Your task to perform on an android device: Search for seafood restaurants on Google Maps Image 0: 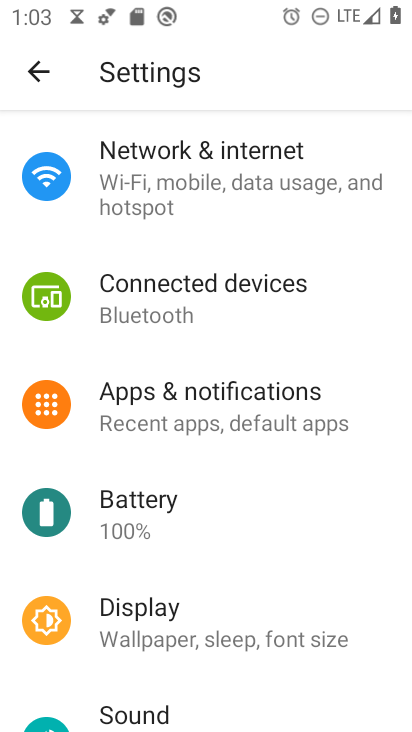
Step 0: press home button
Your task to perform on an android device: Search for seafood restaurants on Google Maps Image 1: 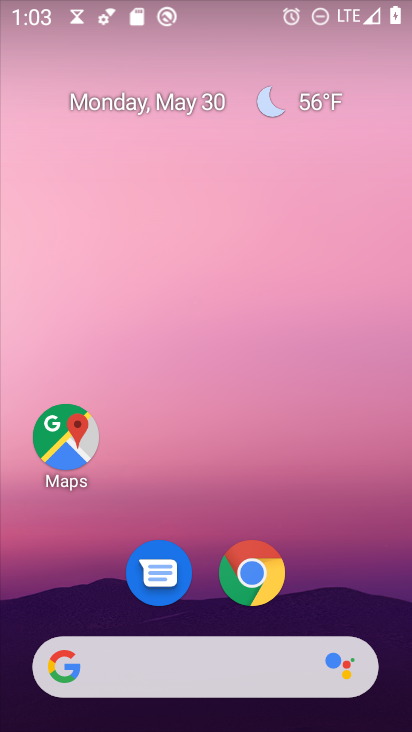
Step 1: drag from (289, 605) to (408, 723)
Your task to perform on an android device: Search for seafood restaurants on Google Maps Image 2: 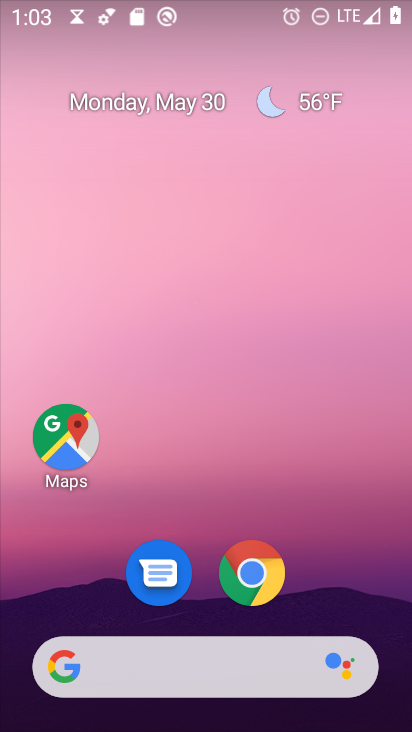
Step 2: click (339, 590)
Your task to perform on an android device: Search for seafood restaurants on Google Maps Image 3: 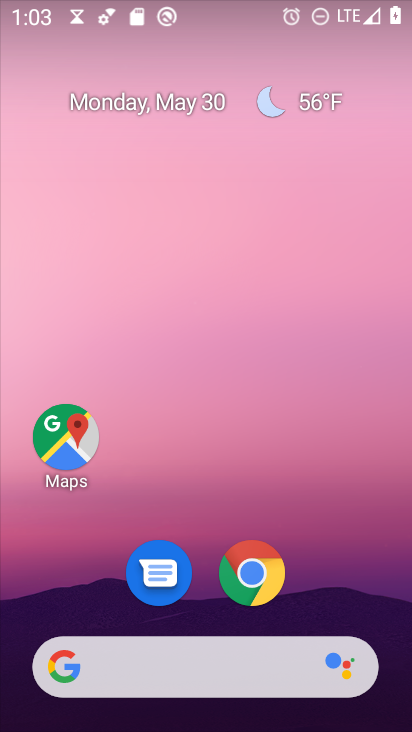
Step 3: drag from (349, 595) to (351, 10)
Your task to perform on an android device: Search for seafood restaurants on Google Maps Image 4: 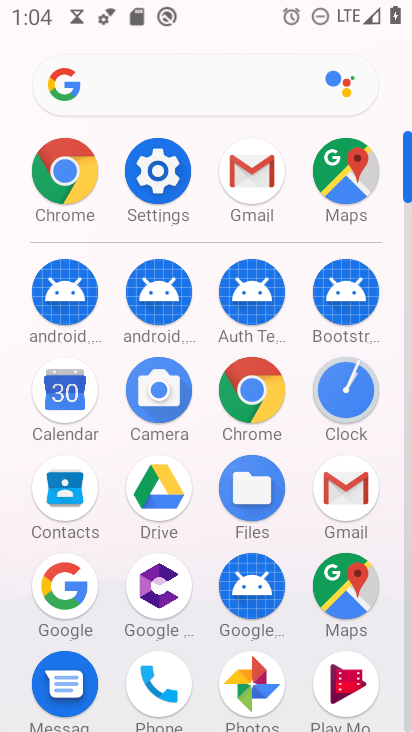
Step 4: click (346, 577)
Your task to perform on an android device: Search for seafood restaurants on Google Maps Image 5: 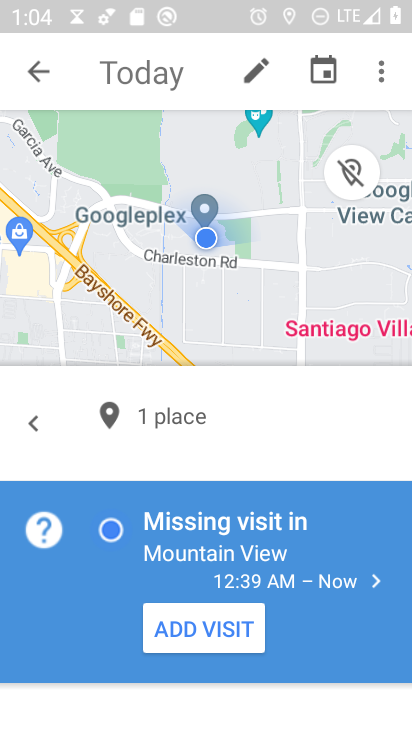
Step 5: press back button
Your task to perform on an android device: Search for seafood restaurants on Google Maps Image 6: 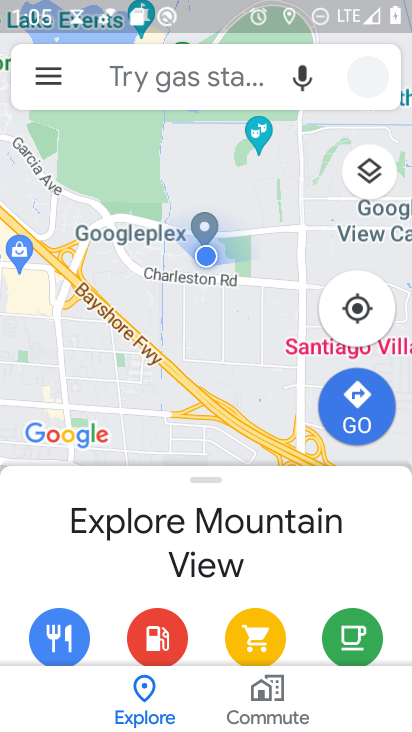
Step 6: click (228, 75)
Your task to perform on an android device: Search for seafood restaurants on Google Maps Image 7: 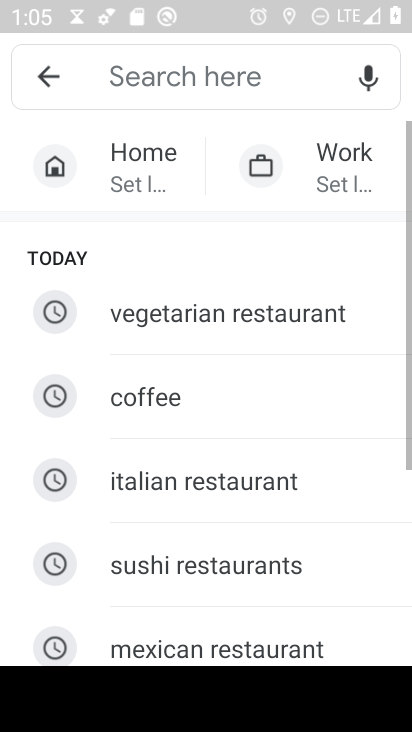
Step 7: drag from (272, 623) to (297, 197)
Your task to perform on an android device: Search for seafood restaurants on Google Maps Image 8: 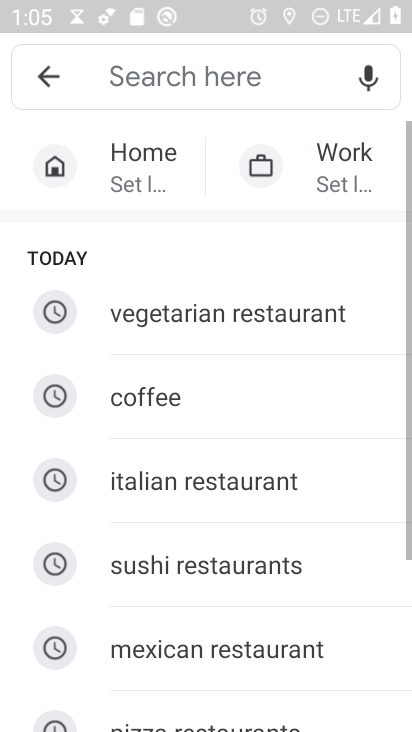
Step 8: drag from (270, 592) to (214, 605)
Your task to perform on an android device: Search for seafood restaurants on Google Maps Image 9: 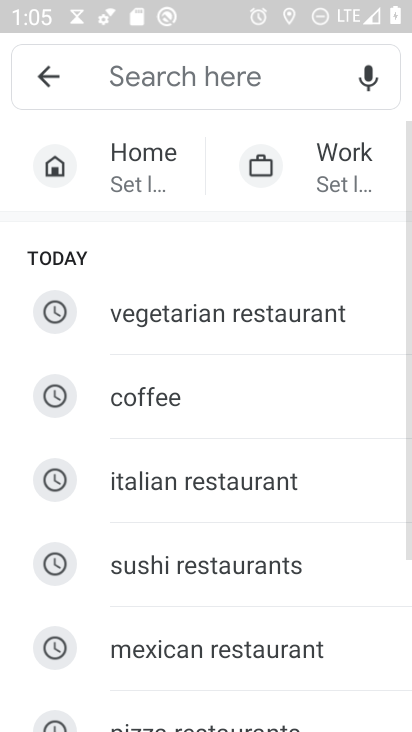
Step 9: click (210, 76)
Your task to perform on an android device: Search for seafood restaurants on Google Maps Image 10: 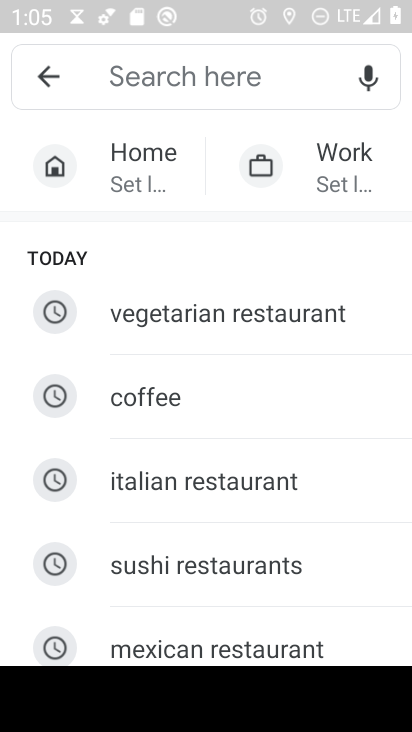
Step 10: type "seafood restaurant"
Your task to perform on an android device: Search for seafood restaurants on Google Maps Image 11: 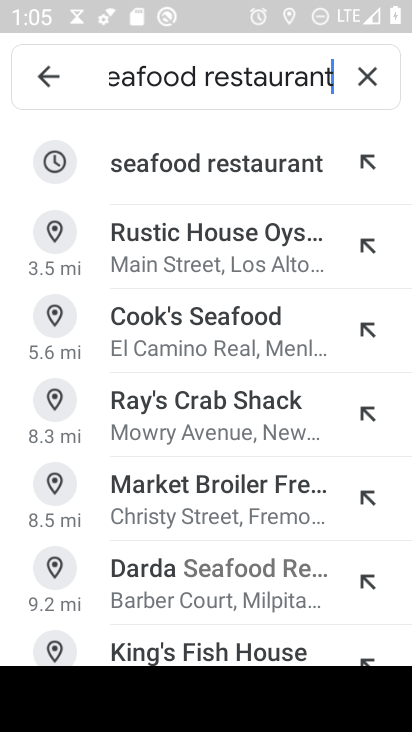
Step 11: click (237, 169)
Your task to perform on an android device: Search for seafood restaurants on Google Maps Image 12: 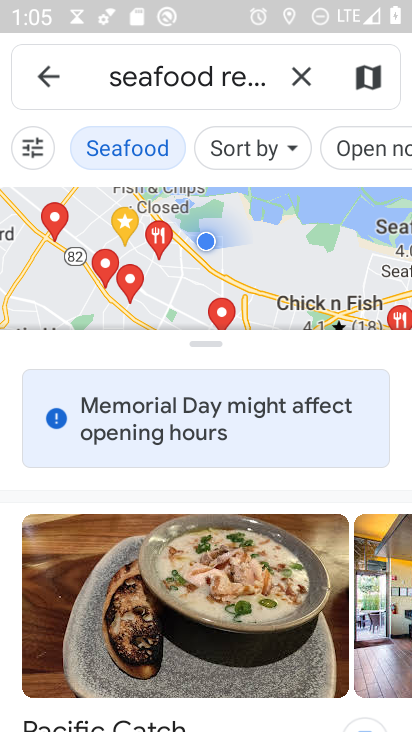
Step 12: task complete